Your task to perform on an android device: Open Youtube and go to "Your channel" Image 0: 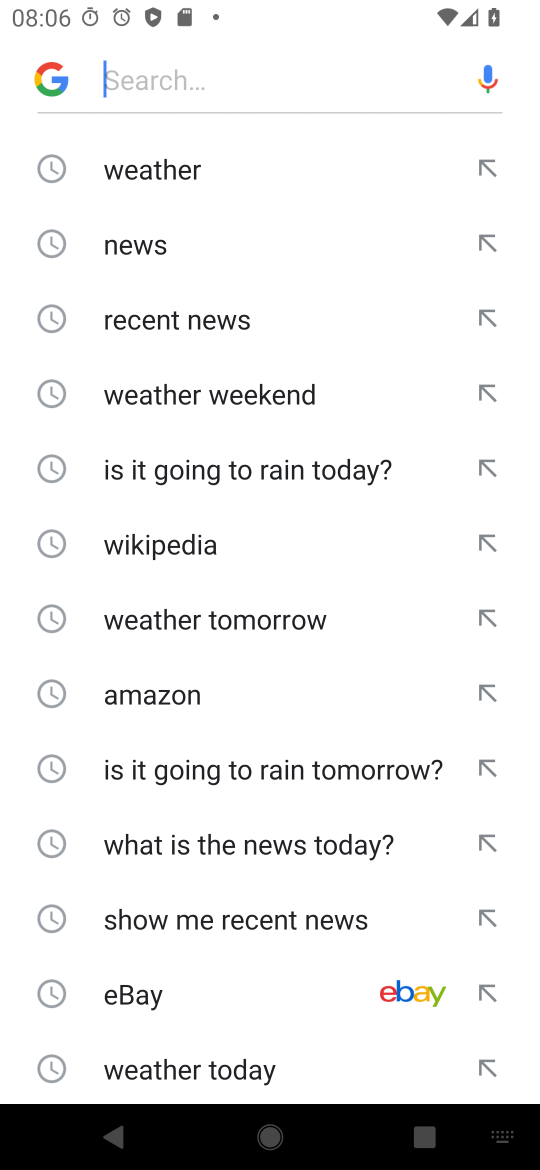
Step 0: press home button
Your task to perform on an android device: Open Youtube and go to "Your channel" Image 1: 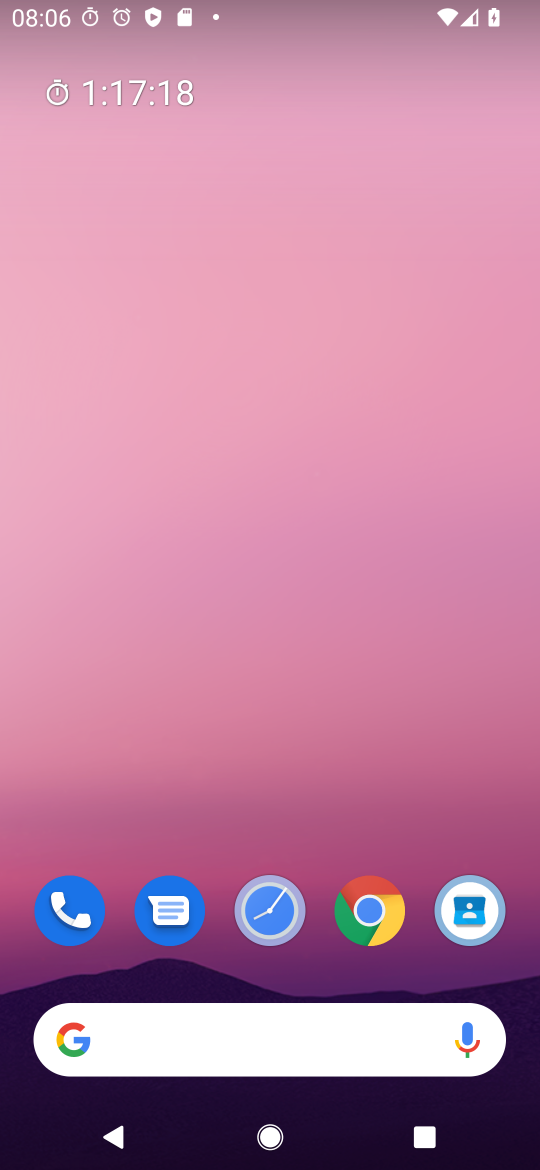
Step 1: drag from (359, 1026) to (342, 285)
Your task to perform on an android device: Open Youtube and go to "Your channel" Image 2: 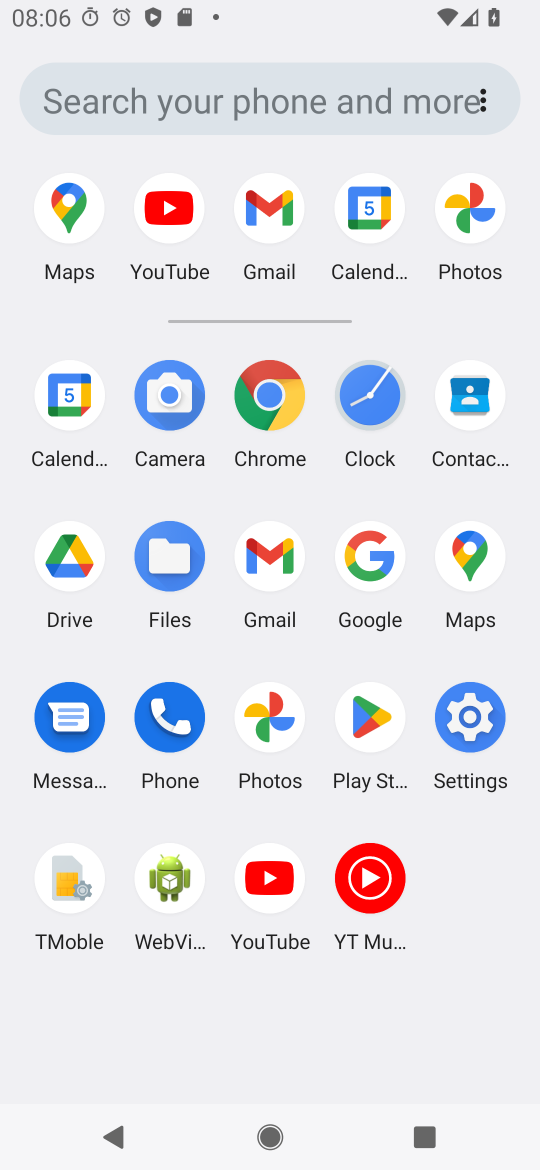
Step 2: click (259, 873)
Your task to perform on an android device: Open Youtube and go to "Your channel" Image 3: 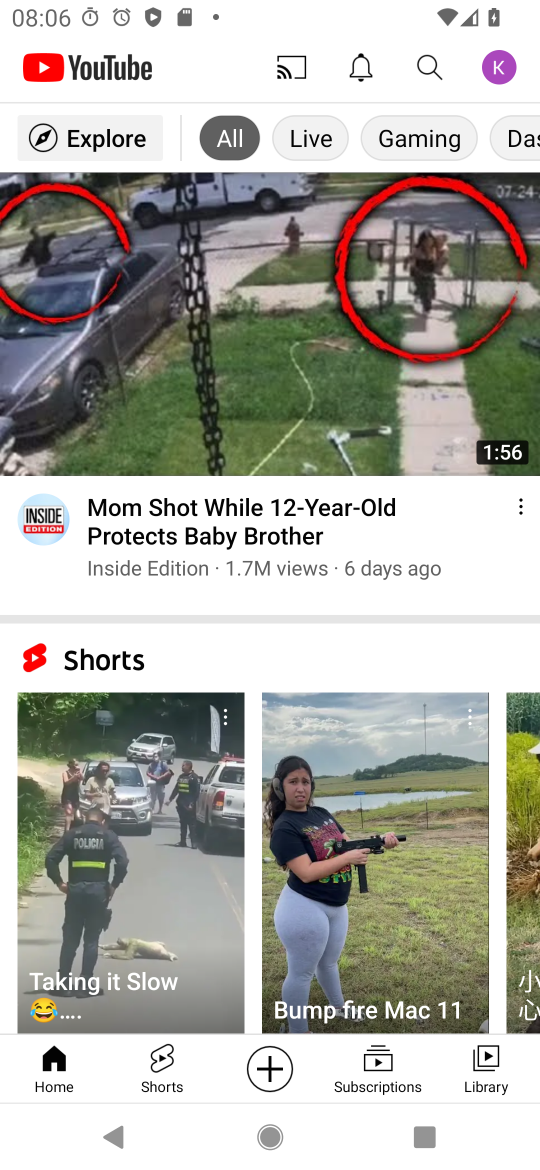
Step 3: click (496, 66)
Your task to perform on an android device: Open Youtube and go to "Your channel" Image 4: 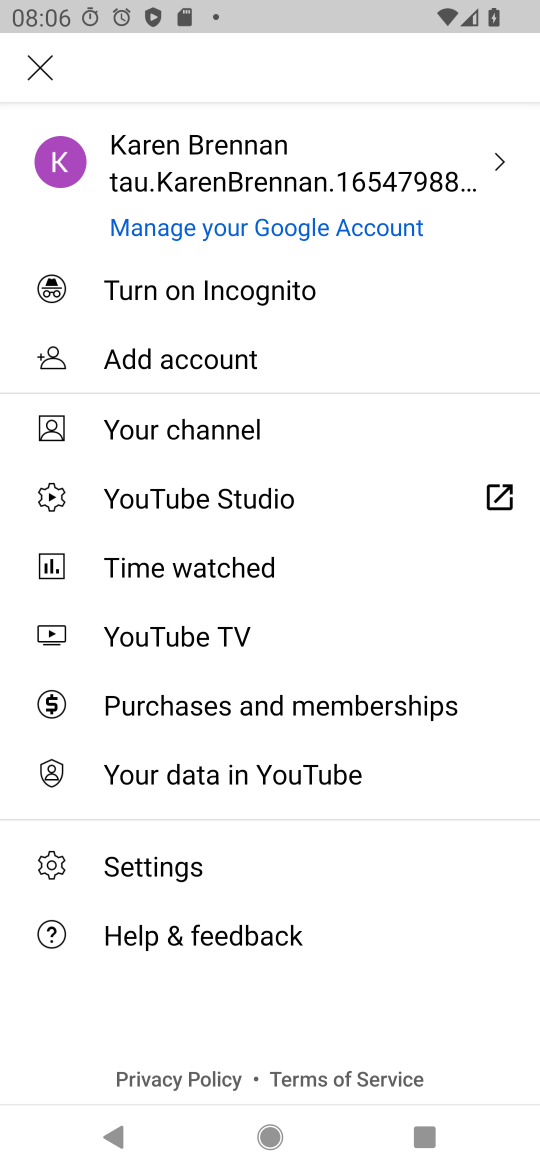
Step 4: click (131, 430)
Your task to perform on an android device: Open Youtube and go to "Your channel" Image 5: 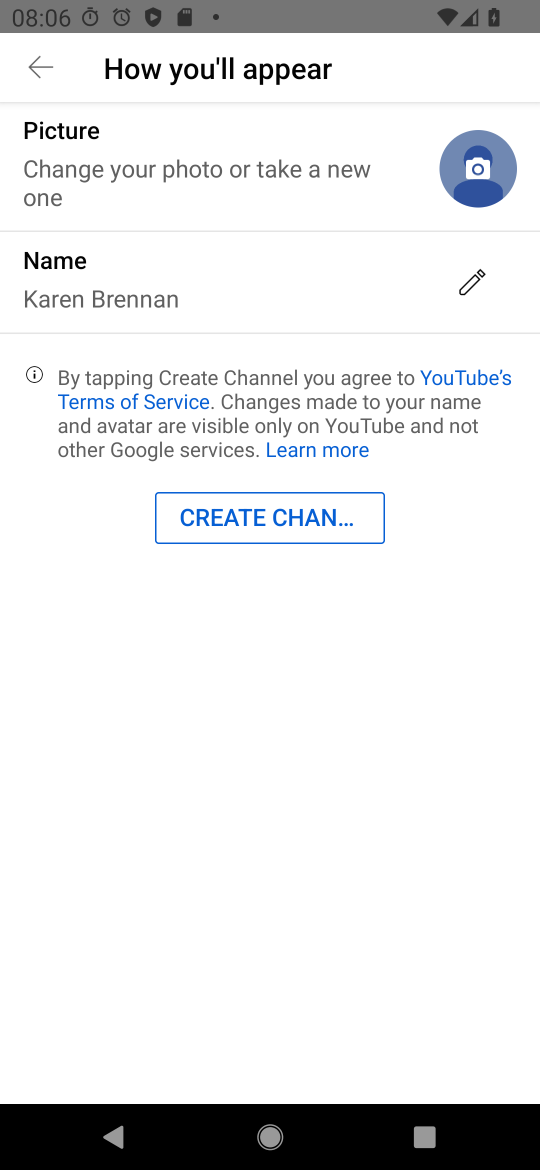
Step 5: task complete